Your task to perform on an android device: check the backup settings in the google photos Image 0: 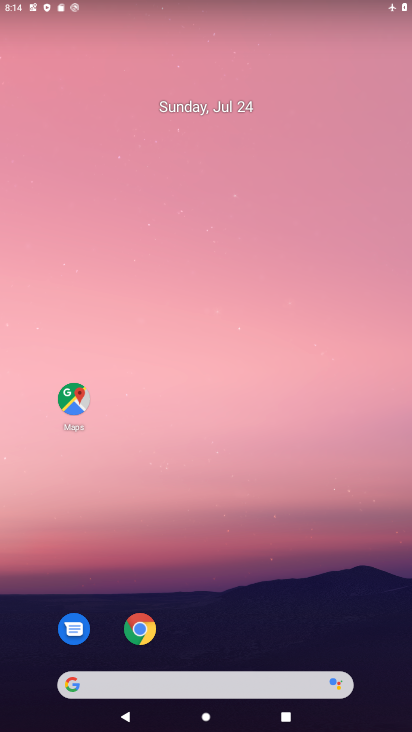
Step 0: drag from (382, 35) to (374, 303)
Your task to perform on an android device: check the backup settings in the google photos Image 1: 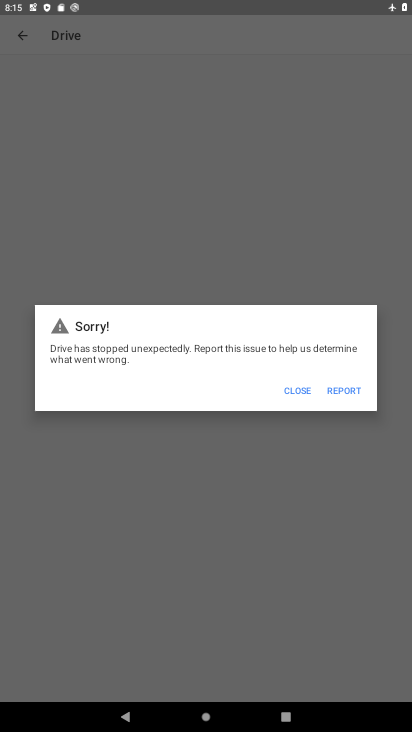
Step 1: press home button
Your task to perform on an android device: check the backup settings in the google photos Image 2: 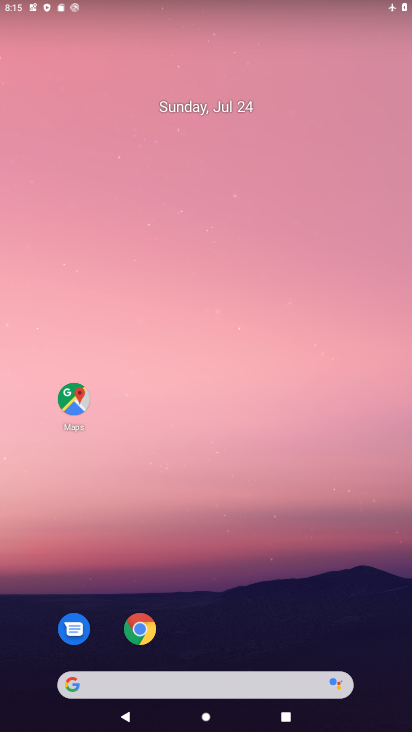
Step 2: drag from (132, 610) to (130, 70)
Your task to perform on an android device: check the backup settings in the google photos Image 3: 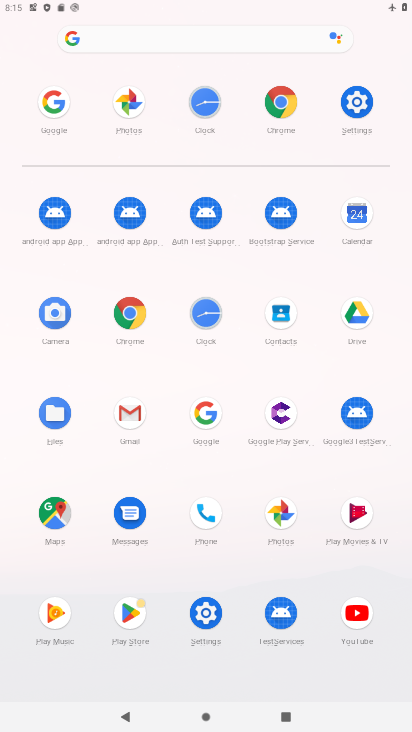
Step 3: click (284, 537)
Your task to perform on an android device: check the backup settings in the google photos Image 4: 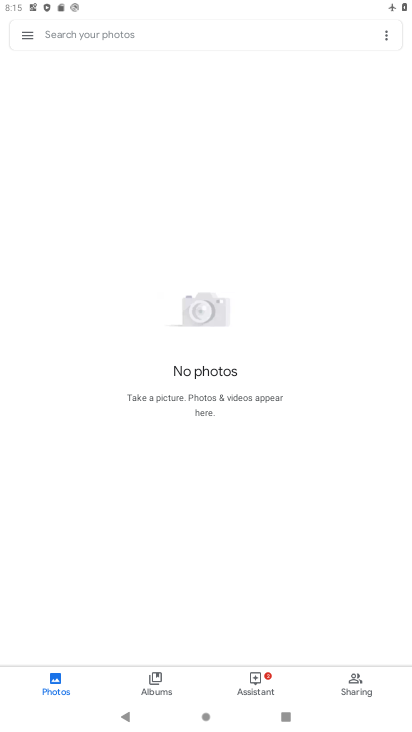
Step 4: click (29, 38)
Your task to perform on an android device: check the backup settings in the google photos Image 5: 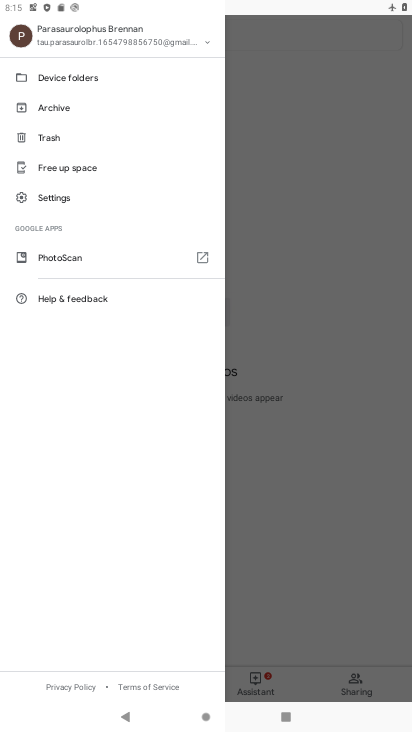
Step 5: click (80, 194)
Your task to perform on an android device: check the backup settings in the google photos Image 6: 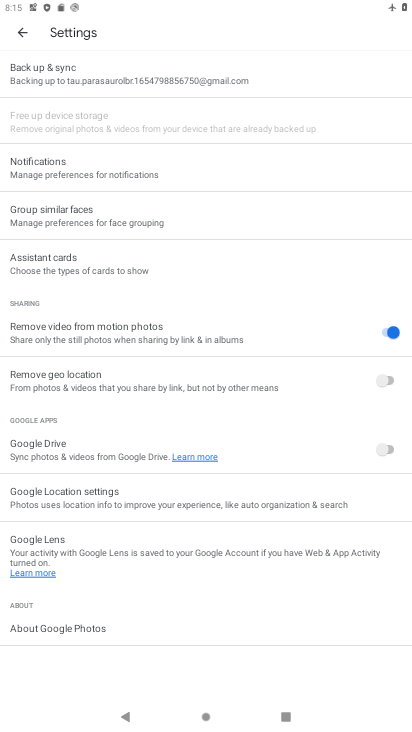
Step 6: click (113, 70)
Your task to perform on an android device: check the backup settings in the google photos Image 7: 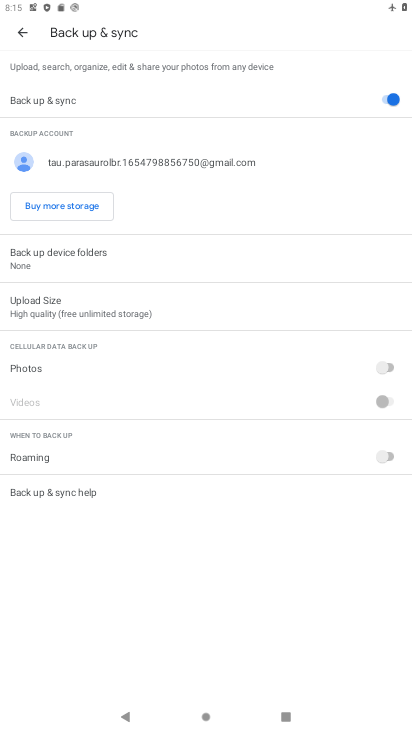
Step 7: task complete